Your task to perform on an android device: turn on wifi Image 0: 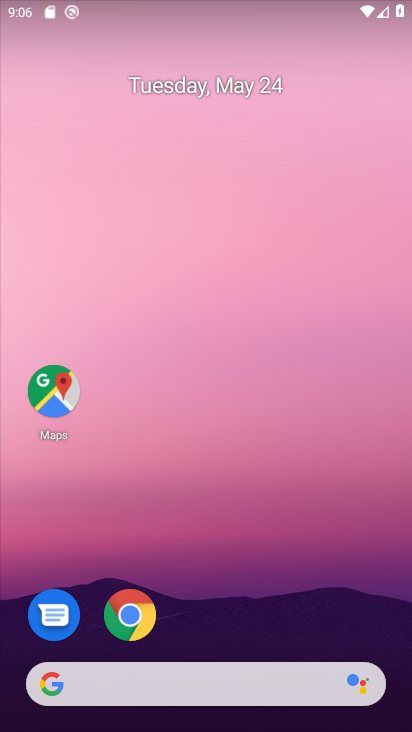
Step 0: drag from (386, 622) to (402, 269)
Your task to perform on an android device: turn on wifi Image 1: 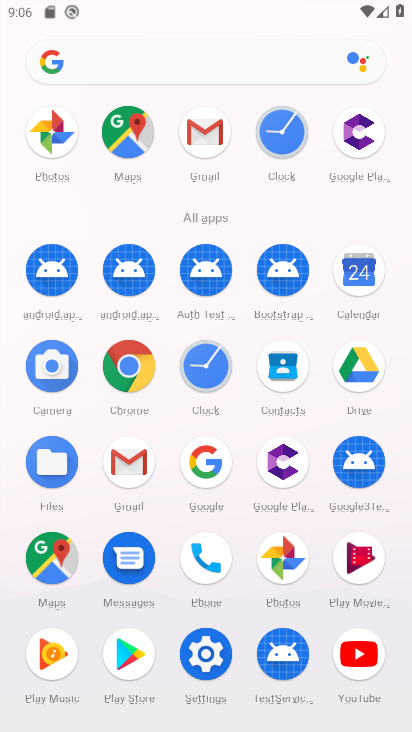
Step 1: click (208, 660)
Your task to perform on an android device: turn on wifi Image 2: 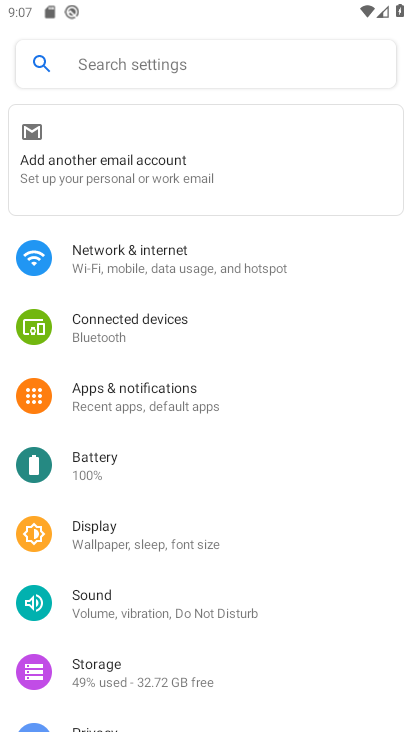
Step 2: drag from (335, 362) to (332, 492)
Your task to perform on an android device: turn on wifi Image 3: 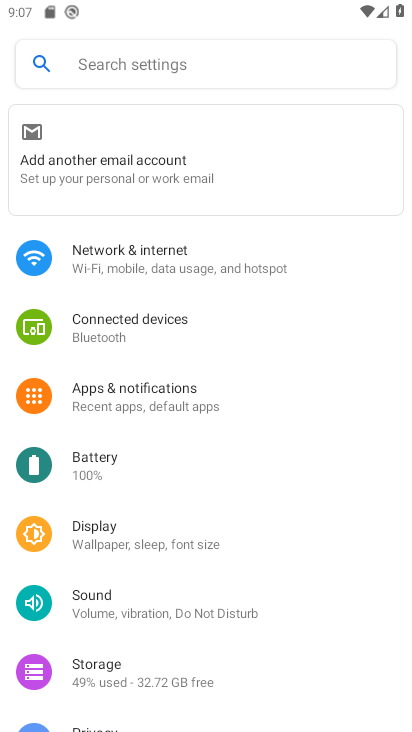
Step 3: click (316, 250)
Your task to perform on an android device: turn on wifi Image 4: 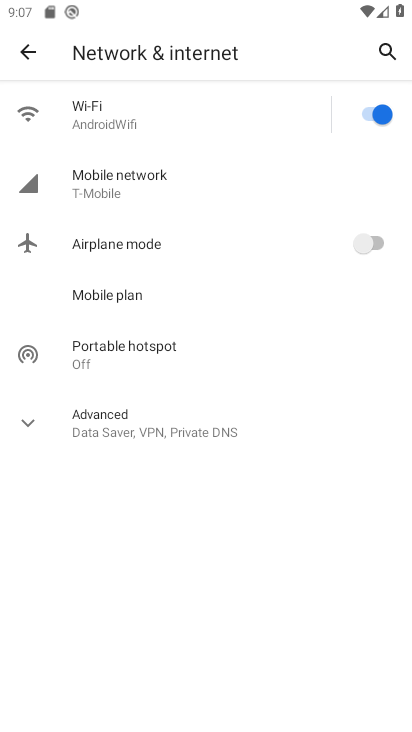
Step 4: task complete